Your task to perform on an android device: Open Chrome and go to settings Image 0: 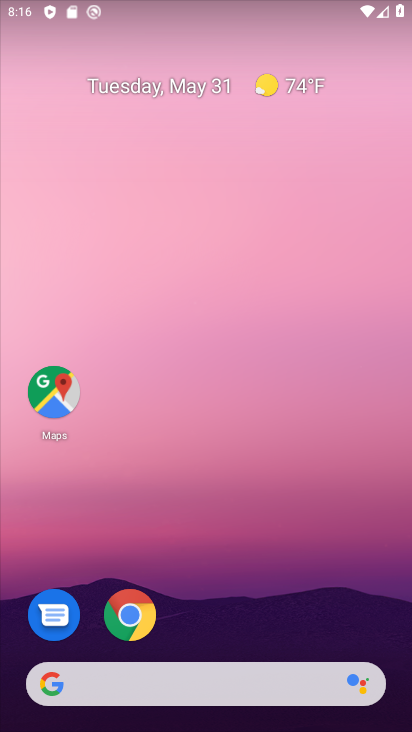
Step 0: click (144, 600)
Your task to perform on an android device: Open Chrome and go to settings Image 1: 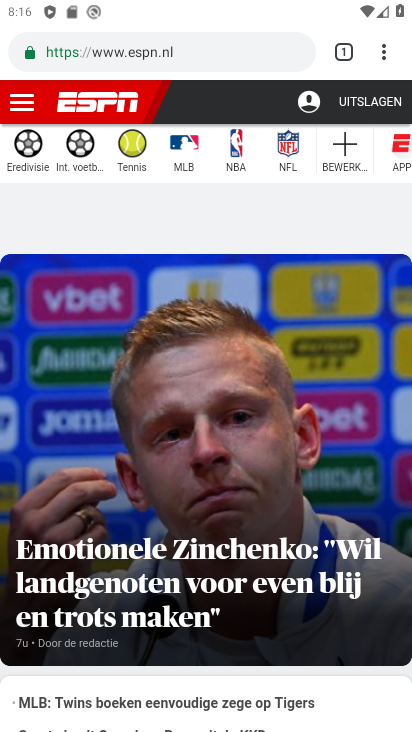
Step 1: task complete